Your task to perform on an android device: Show the shopping cart on costco.com. Search for "alienware area 51" on costco.com, select the first entry, add it to the cart, then select checkout. Image 0: 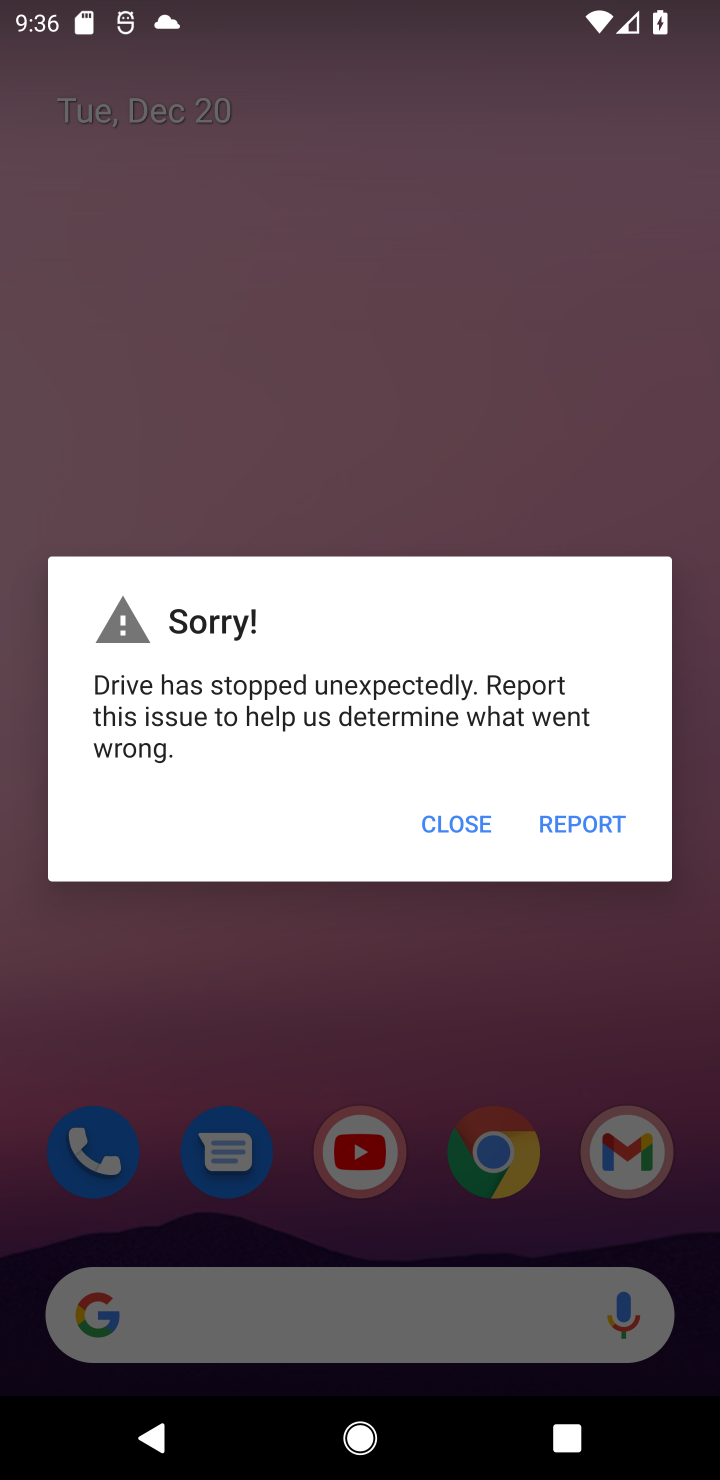
Step 0: click (470, 810)
Your task to perform on an android device: Show the shopping cart on costco.com. Search for "alienware area 51" on costco.com, select the first entry, add it to the cart, then select checkout. Image 1: 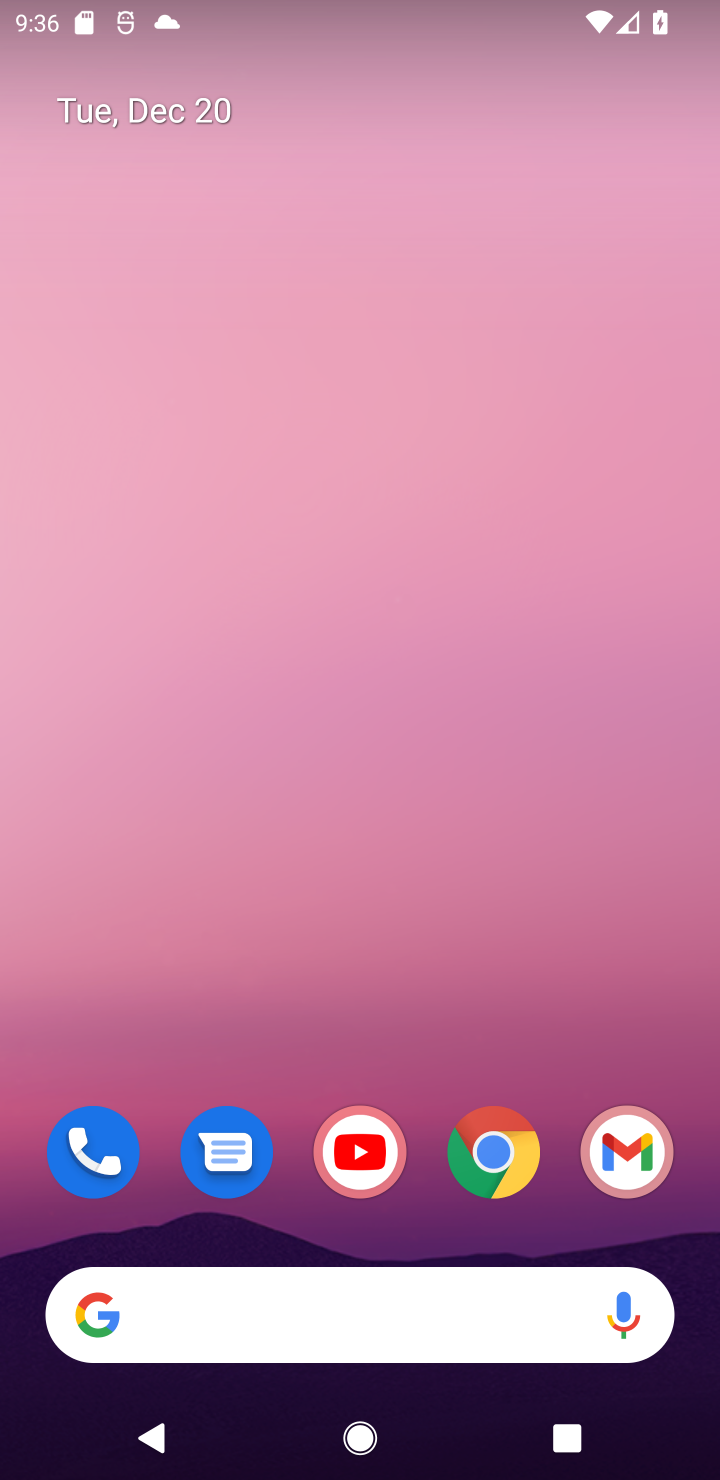
Step 1: click (505, 1158)
Your task to perform on an android device: Show the shopping cart on costco.com. Search for "alienware area 51" on costco.com, select the first entry, add it to the cart, then select checkout. Image 2: 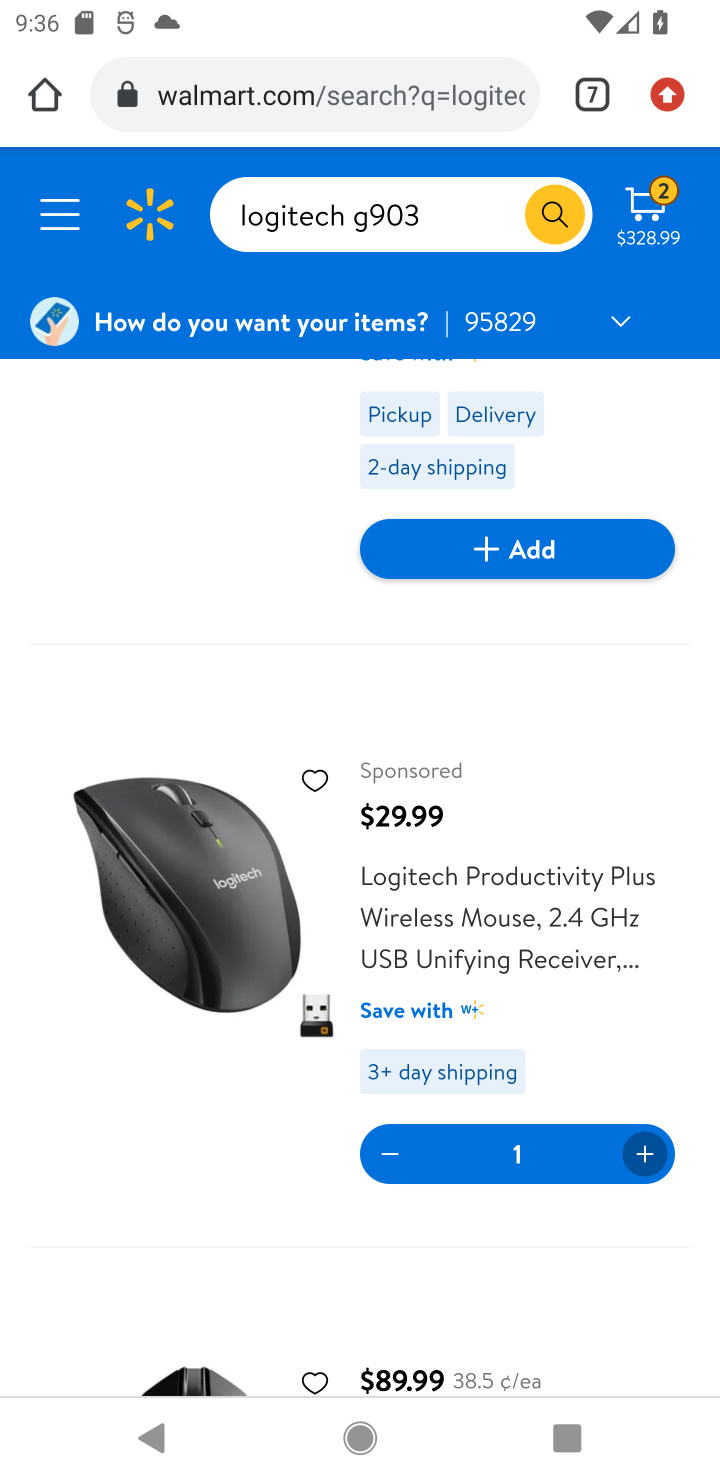
Step 2: click (595, 89)
Your task to perform on an android device: Show the shopping cart on costco.com. Search for "alienware area 51" on costco.com, select the first entry, add it to the cart, then select checkout. Image 3: 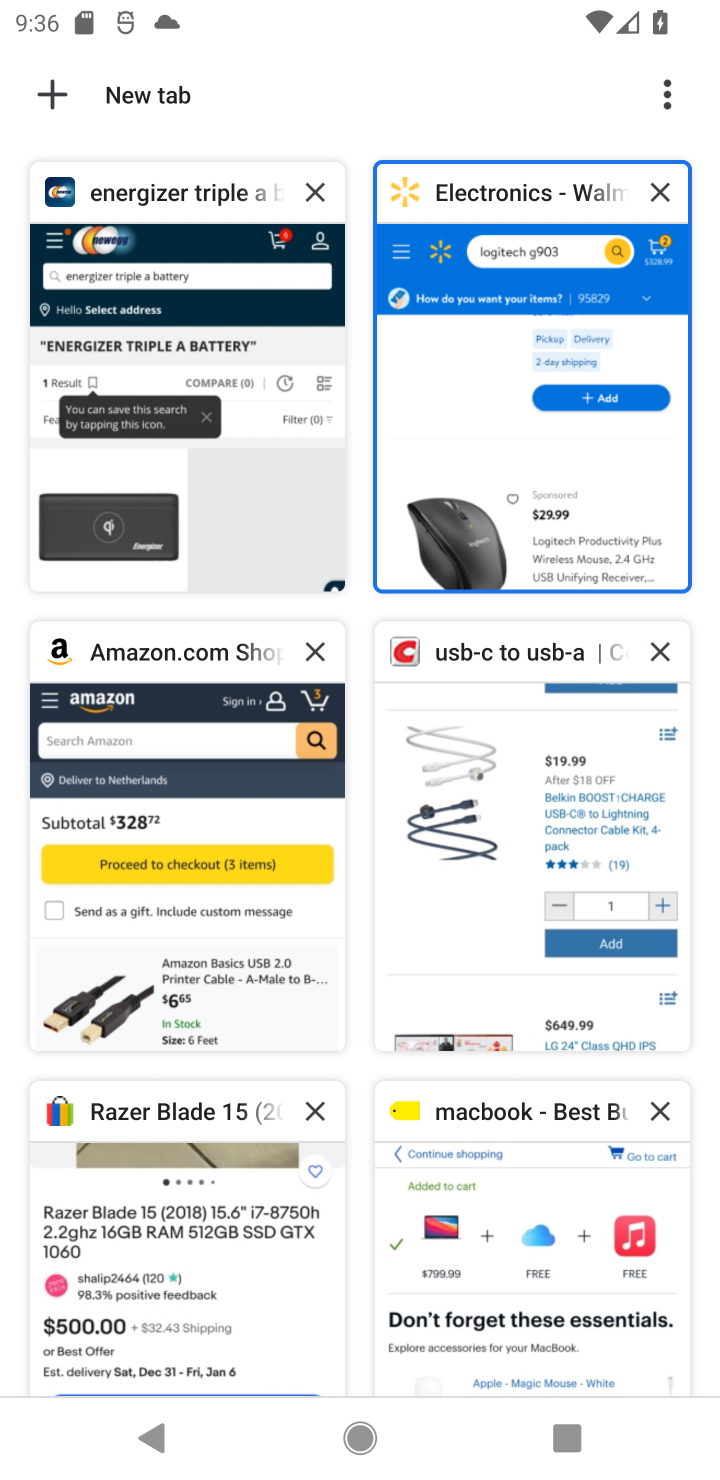
Step 3: click (531, 899)
Your task to perform on an android device: Show the shopping cart on costco.com. Search for "alienware area 51" on costco.com, select the first entry, add it to the cart, then select checkout. Image 4: 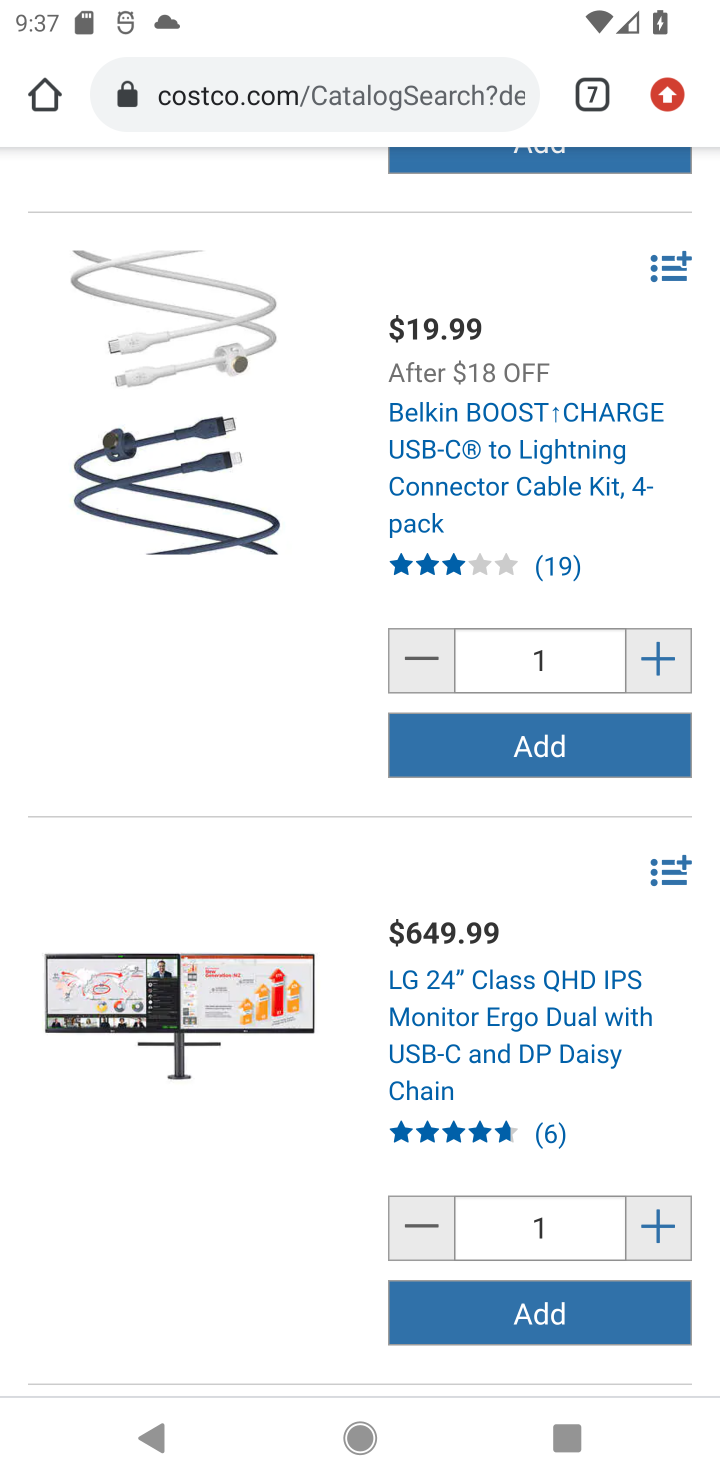
Step 4: drag from (322, 296) to (302, 892)
Your task to perform on an android device: Show the shopping cart on costco.com. Search for "alienware area 51" on costco.com, select the first entry, add it to the cart, then select checkout. Image 5: 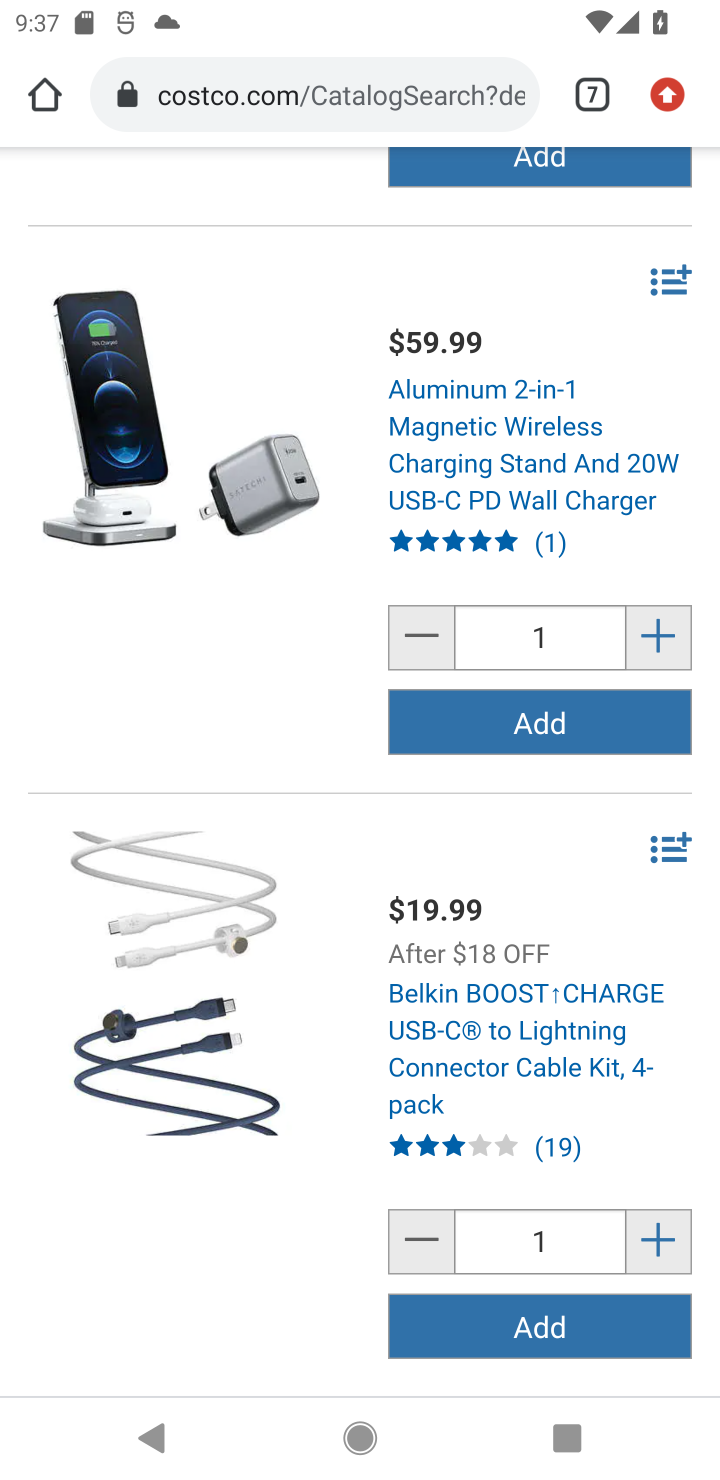
Step 5: drag from (284, 193) to (217, 1145)
Your task to perform on an android device: Show the shopping cart on costco.com. Search for "alienware area 51" on costco.com, select the first entry, add it to the cart, then select checkout. Image 6: 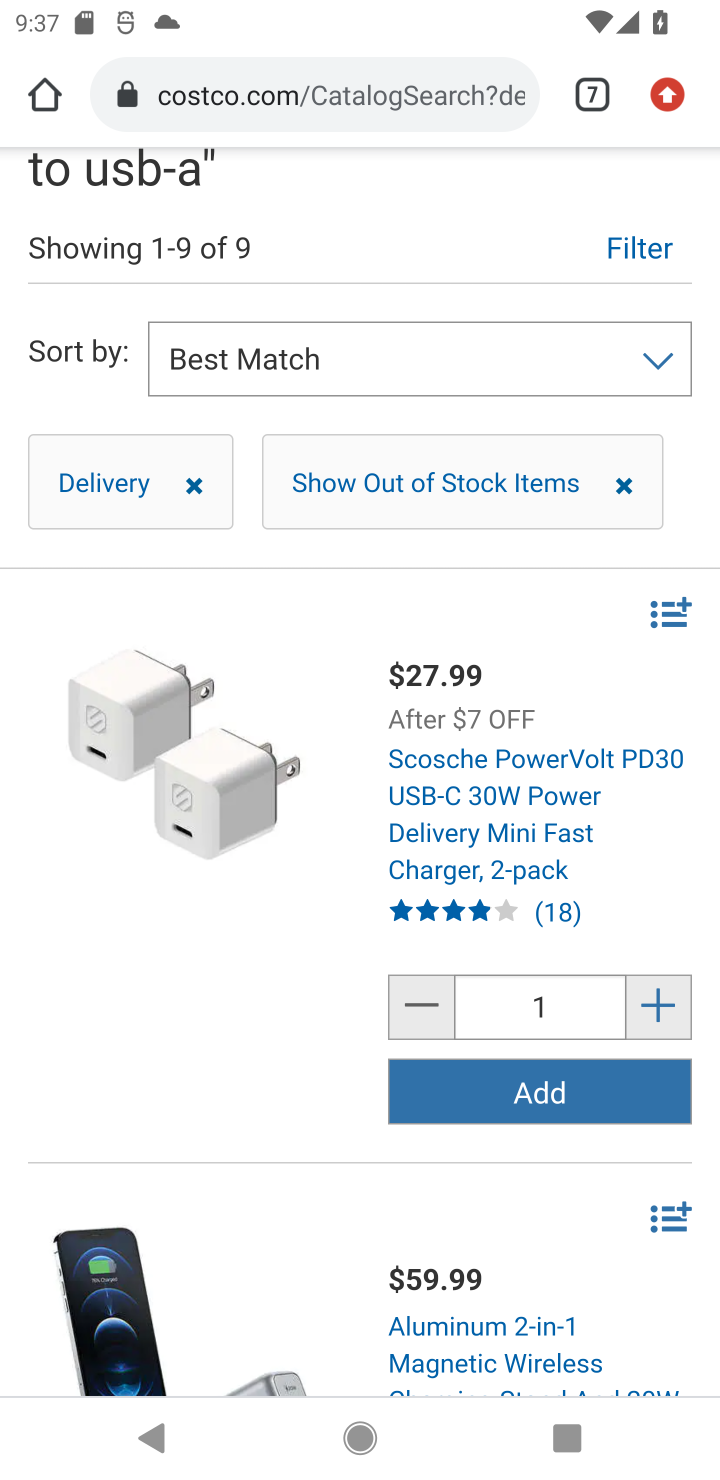
Step 6: drag from (530, 260) to (448, 930)
Your task to perform on an android device: Show the shopping cart on costco.com. Search for "alienware area 51" on costco.com, select the first entry, add it to the cart, then select checkout. Image 7: 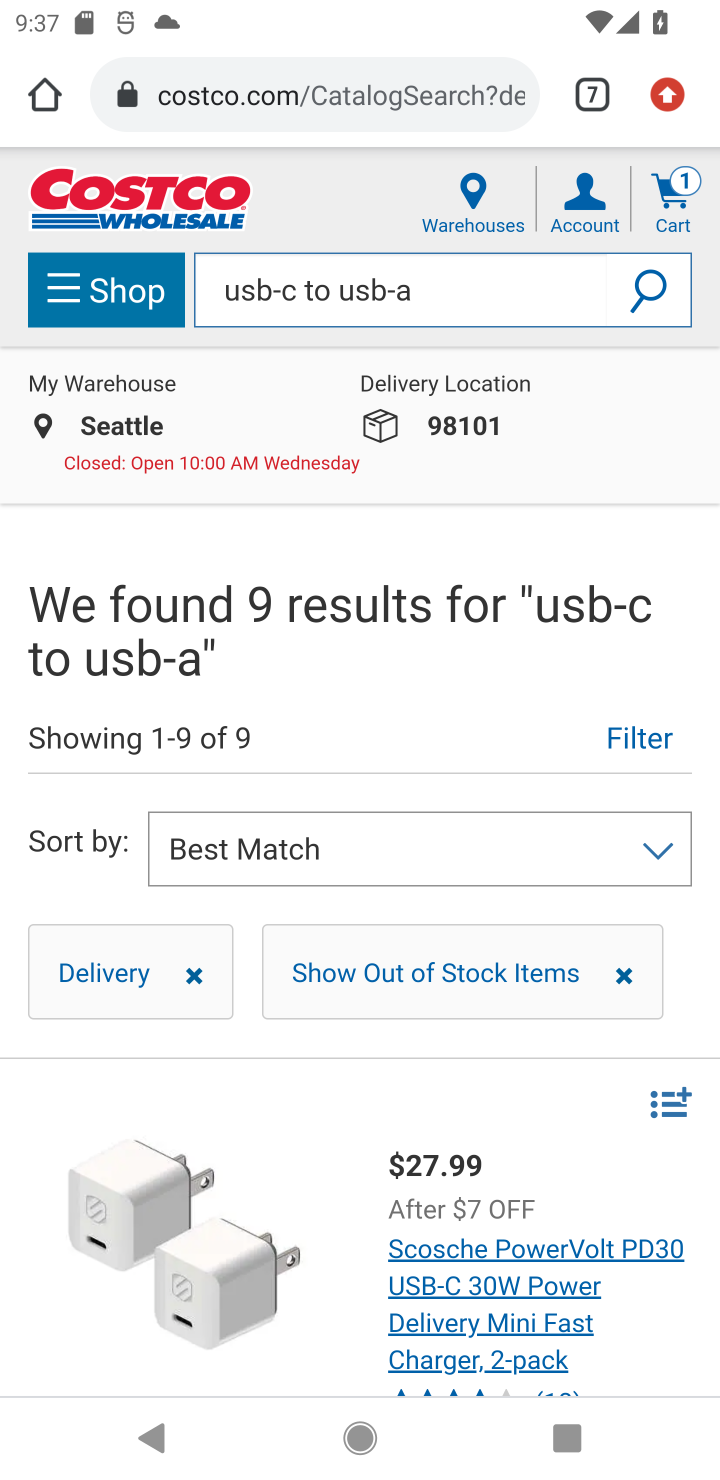
Step 7: click (453, 278)
Your task to perform on an android device: Show the shopping cart on costco.com. Search for "alienware area 51" on costco.com, select the first entry, add it to the cart, then select checkout. Image 8: 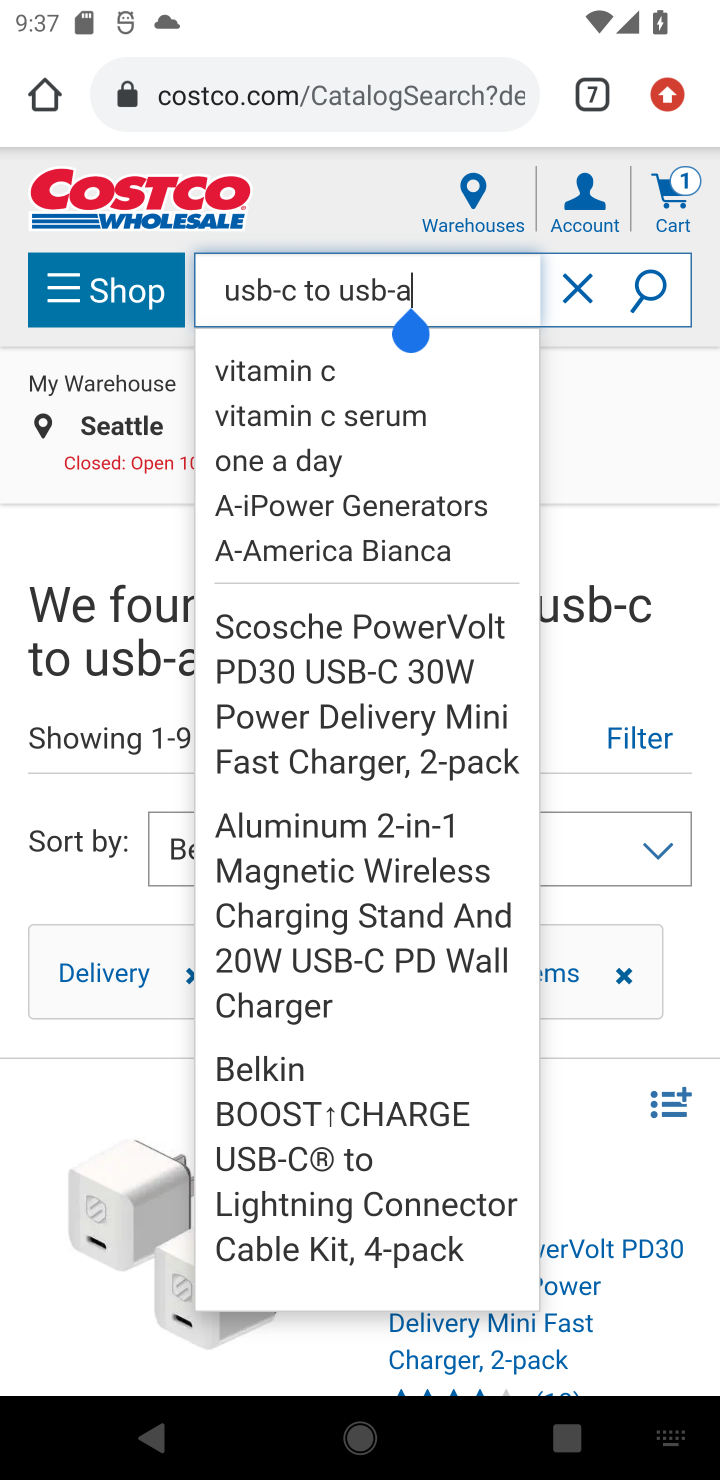
Step 8: click (576, 290)
Your task to perform on an android device: Show the shopping cart on costco.com. Search for "alienware area 51" on costco.com, select the first entry, add it to the cart, then select checkout. Image 9: 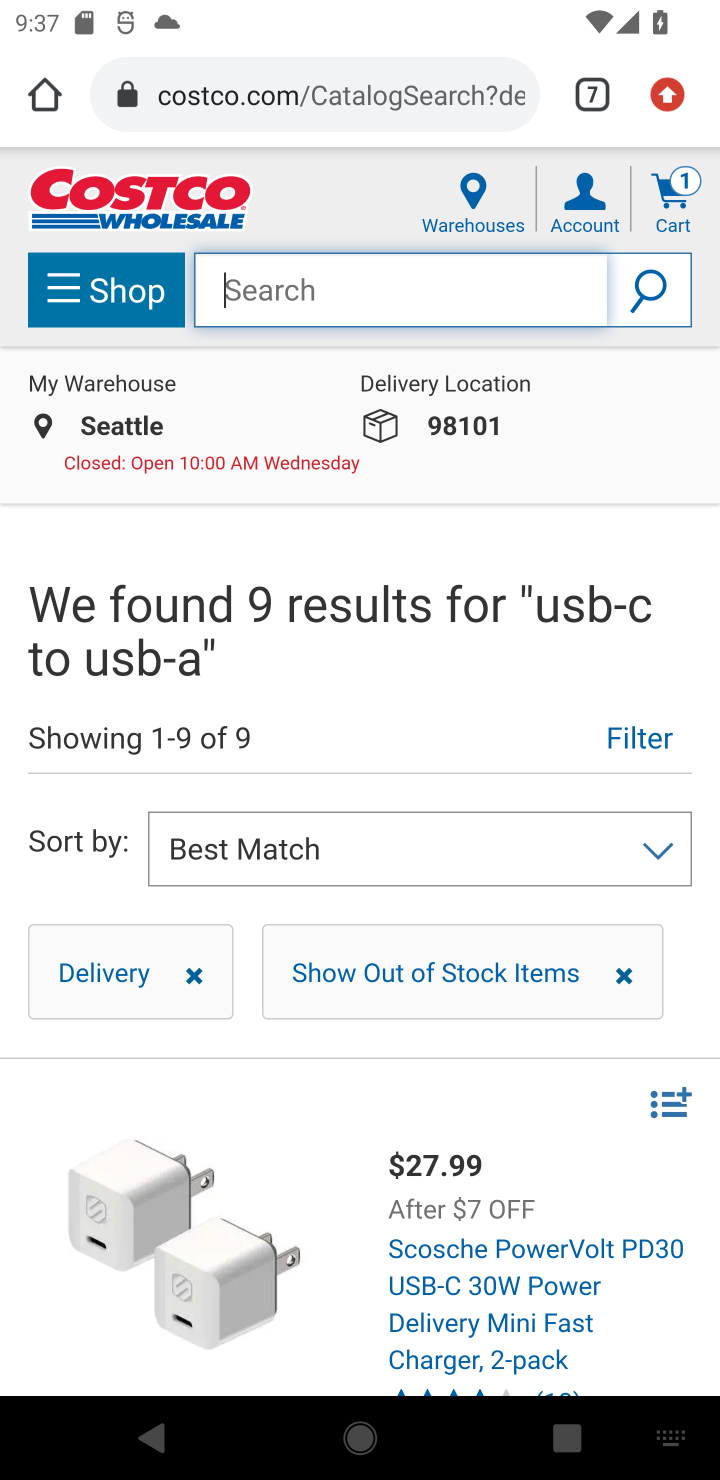
Step 9: type "alienware area 51"
Your task to perform on an android device: Show the shopping cart on costco.com. Search for "alienware area 51" on costco.com, select the first entry, add it to the cart, then select checkout. Image 10: 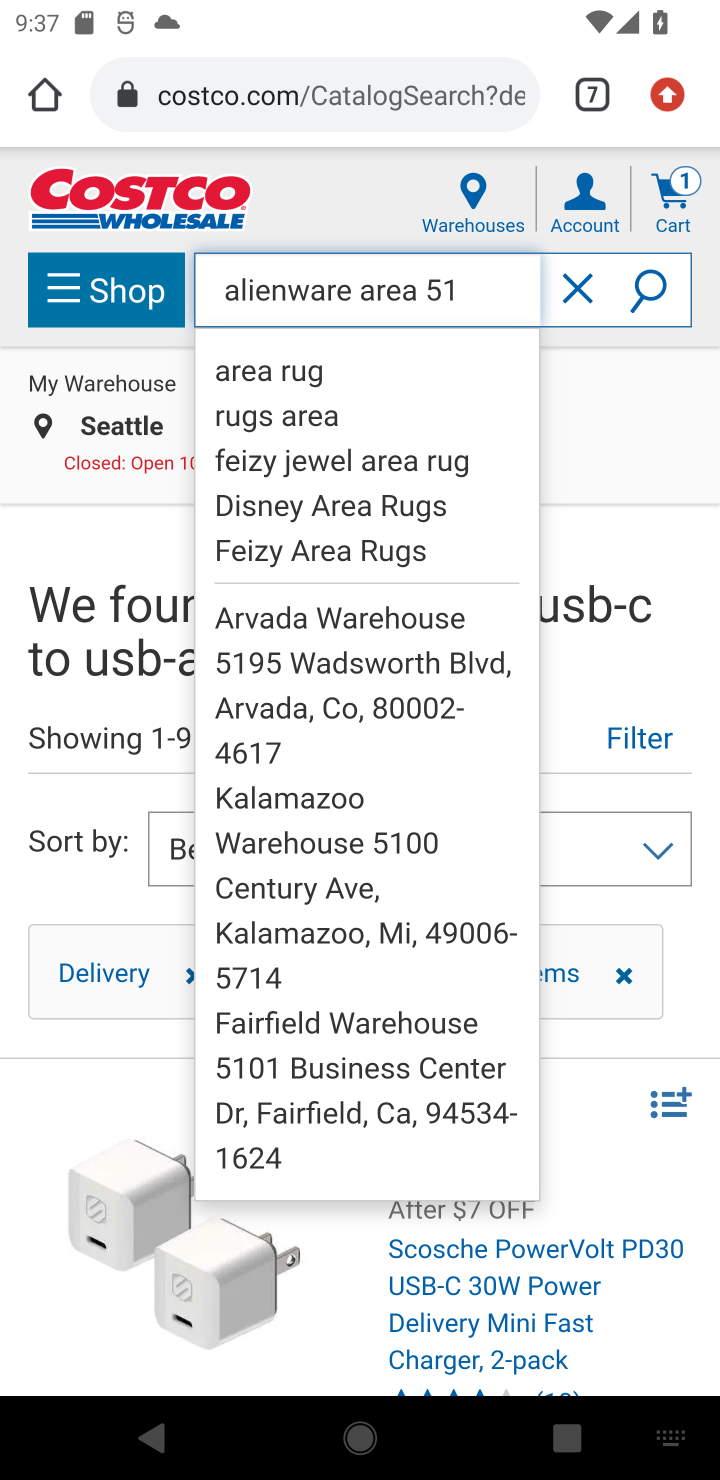
Step 10: click (646, 280)
Your task to perform on an android device: Show the shopping cart on costco.com. Search for "alienware area 51" on costco.com, select the first entry, add it to the cart, then select checkout. Image 11: 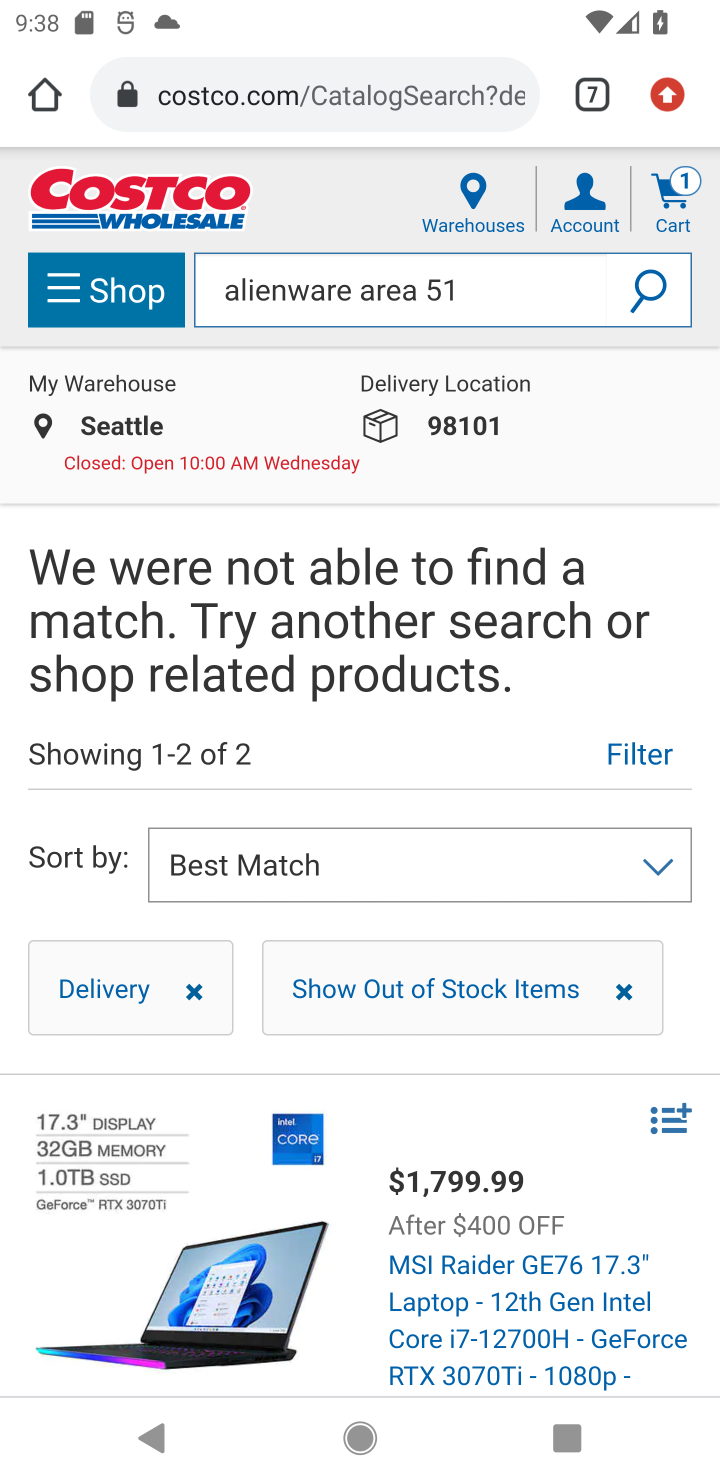
Step 11: click (665, 188)
Your task to perform on an android device: Show the shopping cart on costco.com. Search for "alienware area 51" on costco.com, select the first entry, add it to the cart, then select checkout. Image 12: 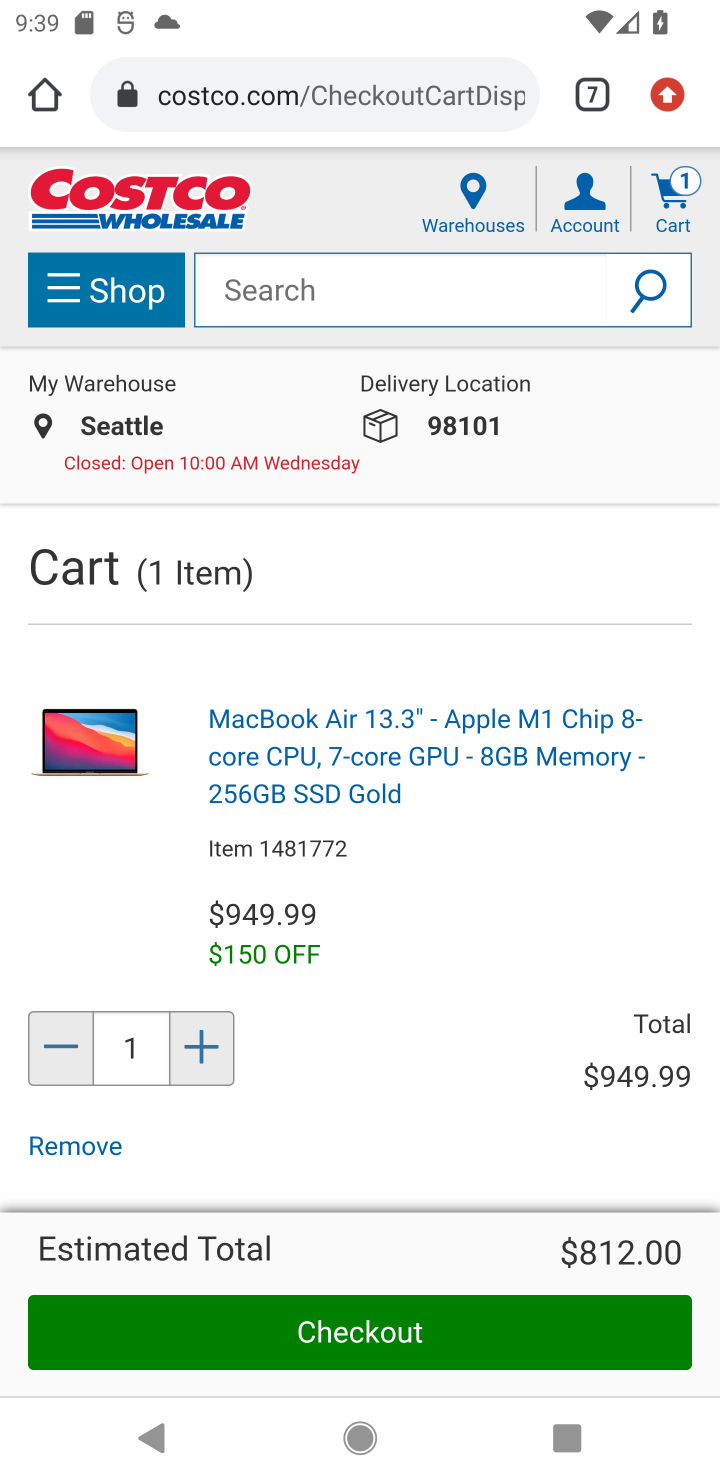
Step 12: click (88, 1138)
Your task to perform on an android device: Show the shopping cart on costco.com. Search for "alienware area 51" on costco.com, select the first entry, add it to the cart, then select checkout. Image 13: 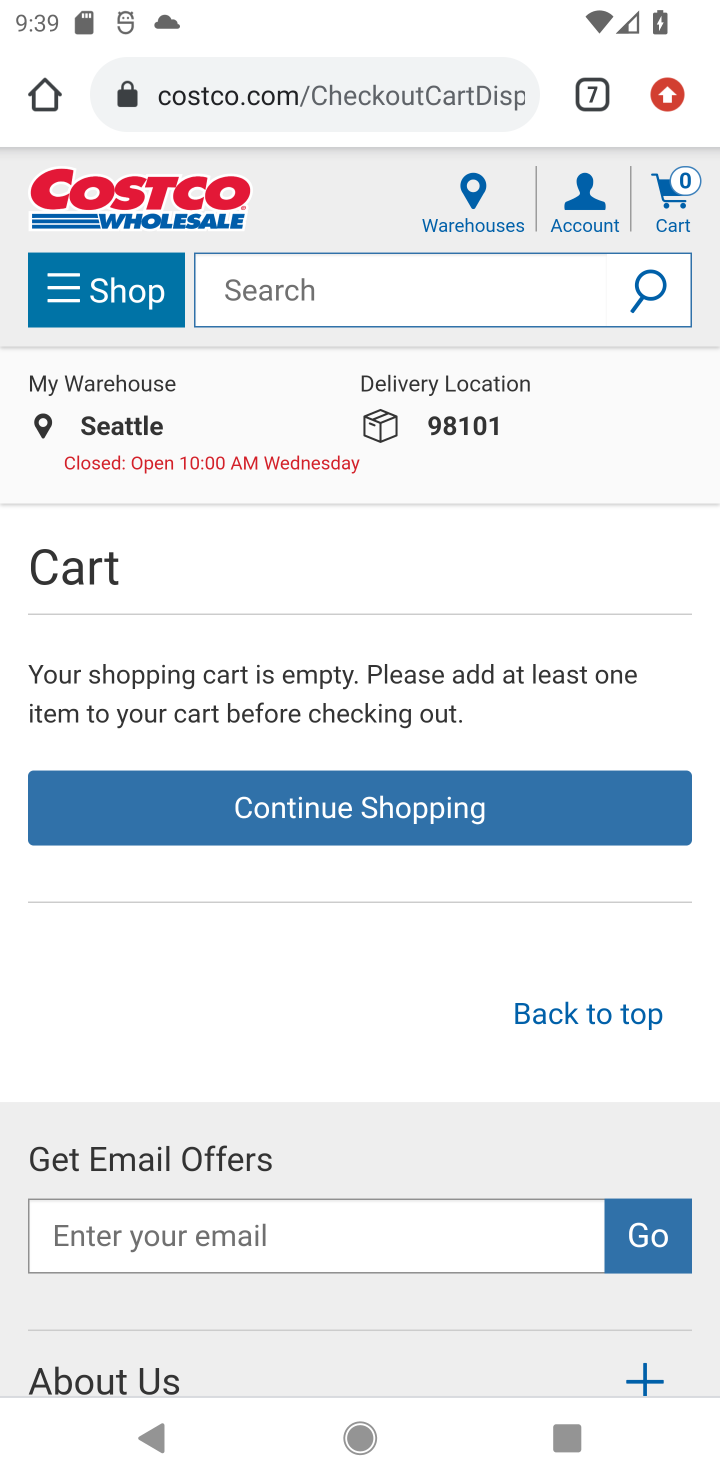
Step 13: click (241, 300)
Your task to perform on an android device: Show the shopping cart on costco.com. Search for "alienware area 51" on costco.com, select the first entry, add it to the cart, then select checkout. Image 14: 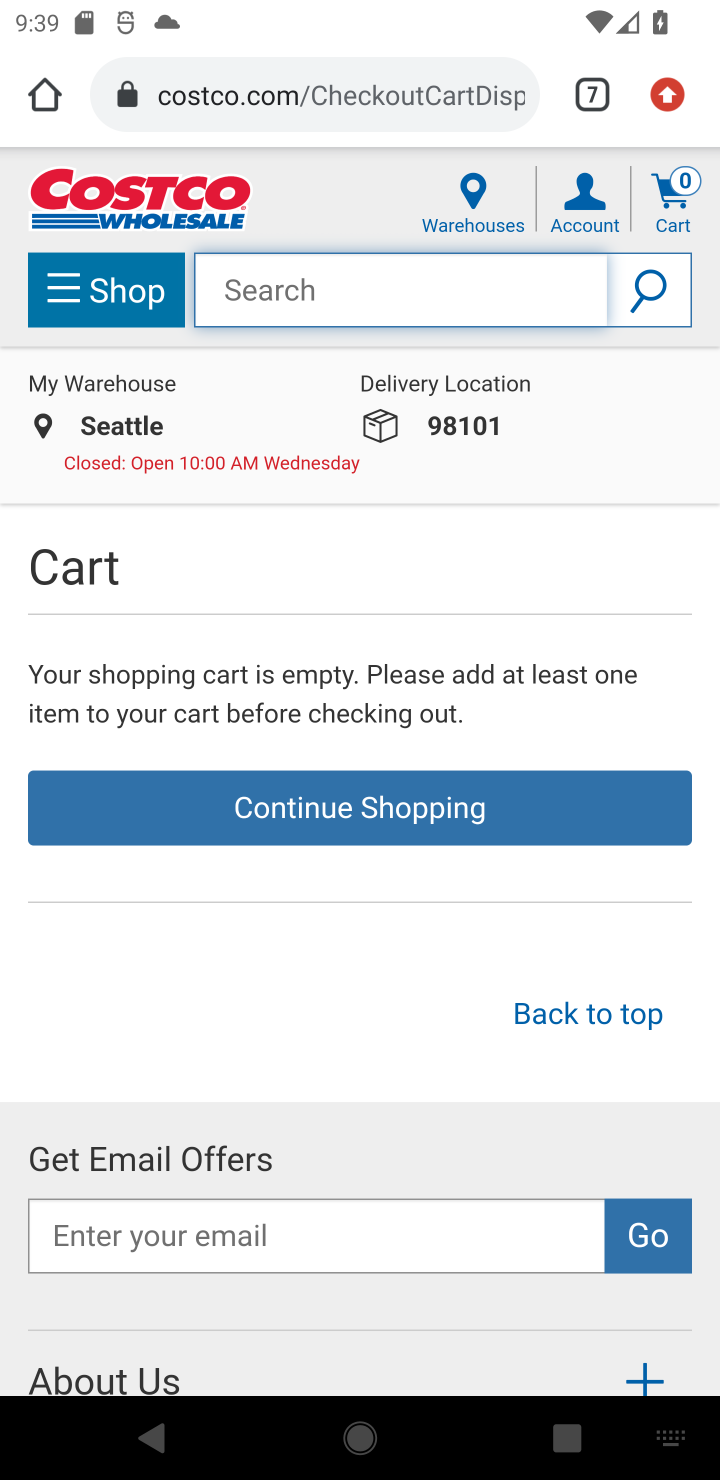
Step 14: type "alienware area 51"
Your task to perform on an android device: Show the shopping cart on costco.com. Search for "alienware area 51" on costco.com, select the first entry, add it to the cart, then select checkout. Image 15: 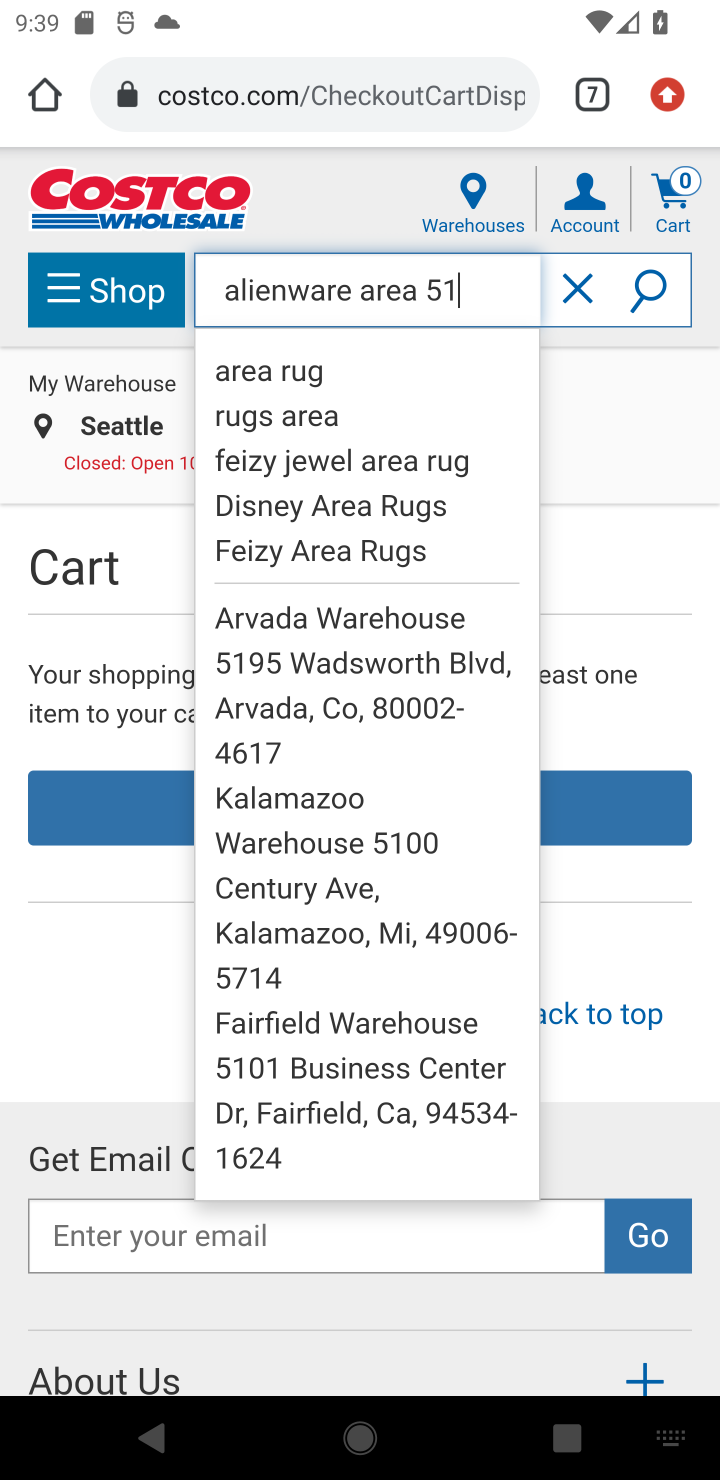
Step 15: click (650, 281)
Your task to perform on an android device: Show the shopping cart on costco.com. Search for "alienware area 51" on costco.com, select the first entry, add it to the cart, then select checkout. Image 16: 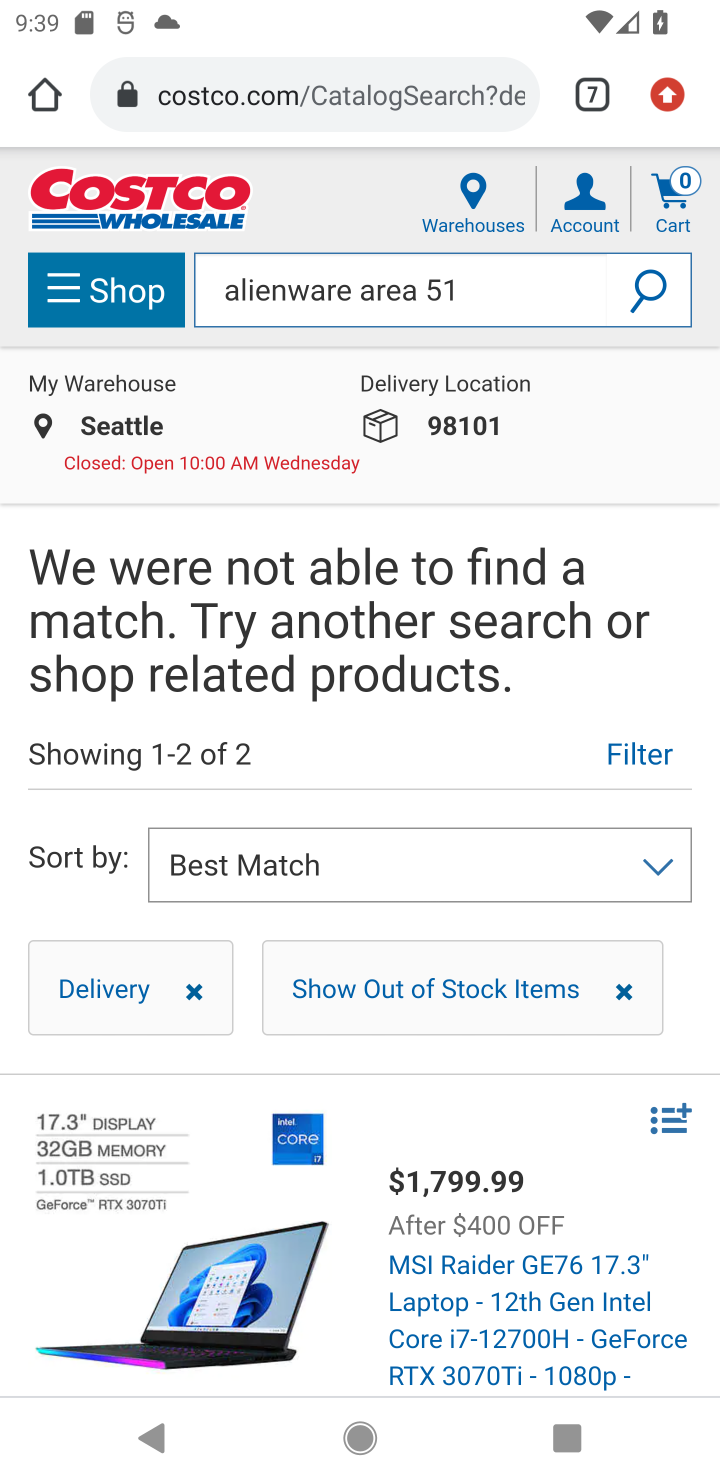
Step 16: task complete